Your task to perform on an android device: check out phone information Image 0: 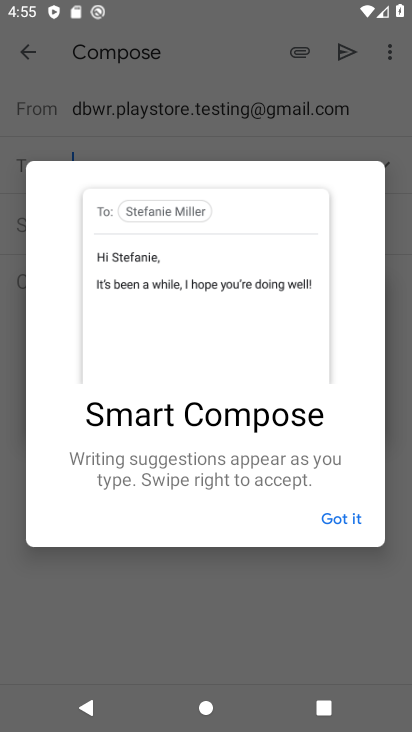
Step 0: press home button
Your task to perform on an android device: check out phone information Image 1: 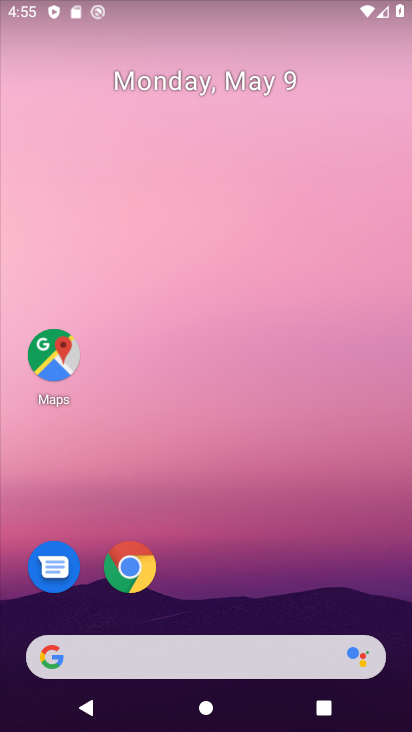
Step 1: drag from (217, 574) to (273, 61)
Your task to perform on an android device: check out phone information Image 2: 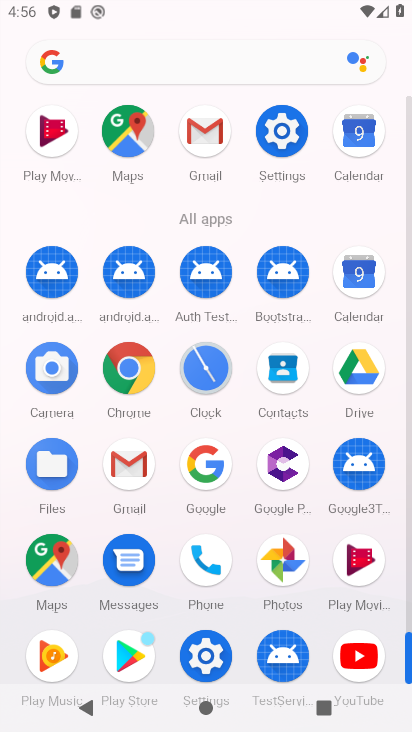
Step 2: click (282, 175)
Your task to perform on an android device: check out phone information Image 3: 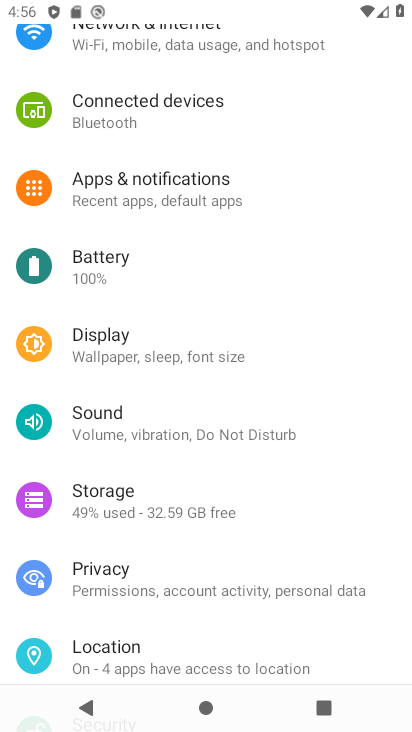
Step 3: drag from (126, 638) to (150, 248)
Your task to perform on an android device: check out phone information Image 4: 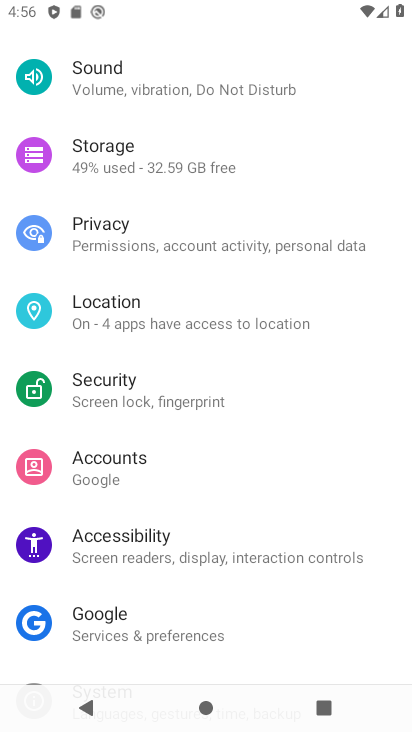
Step 4: drag from (131, 611) to (181, 242)
Your task to perform on an android device: check out phone information Image 5: 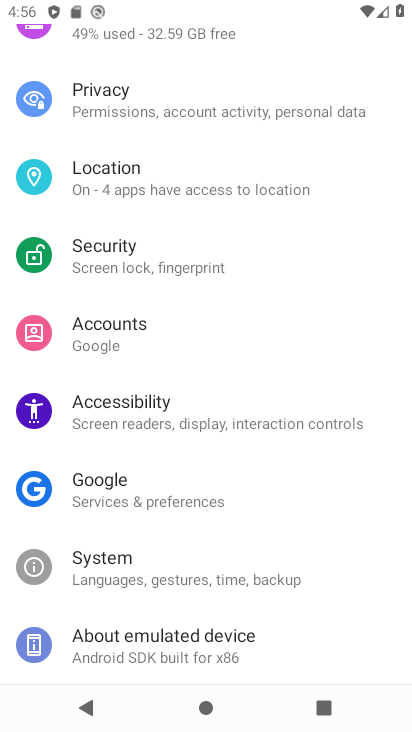
Step 5: click (122, 659)
Your task to perform on an android device: check out phone information Image 6: 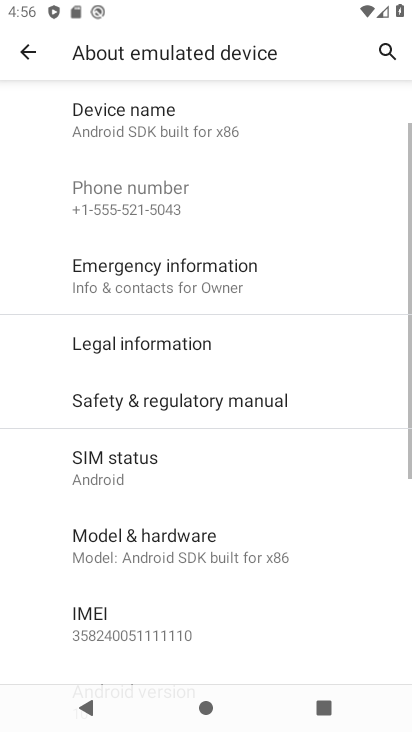
Step 6: task complete